Your task to perform on an android device: find snoozed emails in the gmail app Image 0: 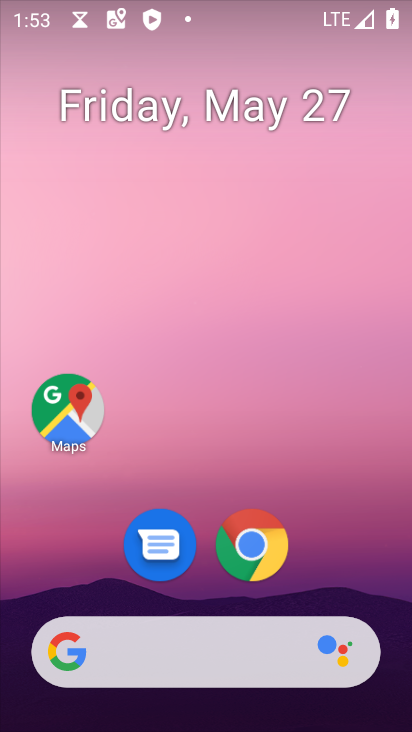
Step 0: drag from (341, 550) to (169, 43)
Your task to perform on an android device: find snoozed emails in the gmail app Image 1: 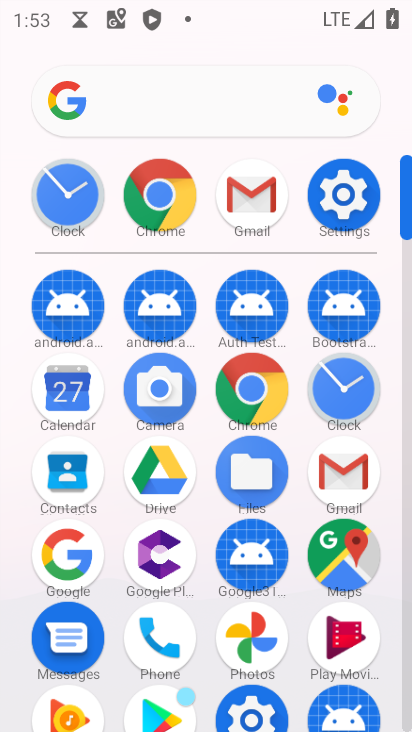
Step 1: click (251, 201)
Your task to perform on an android device: find snoozed emails in the gmail app Image 2: 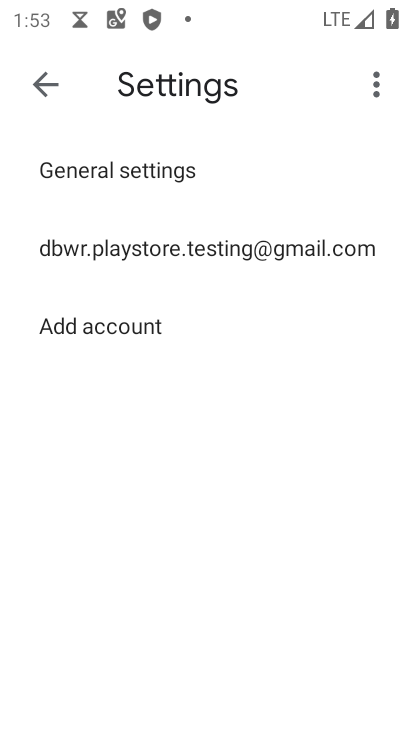
Step 2: click (47, 89)
Your task to perform on an android device: find snoozed emails in the gmail app Image 3: 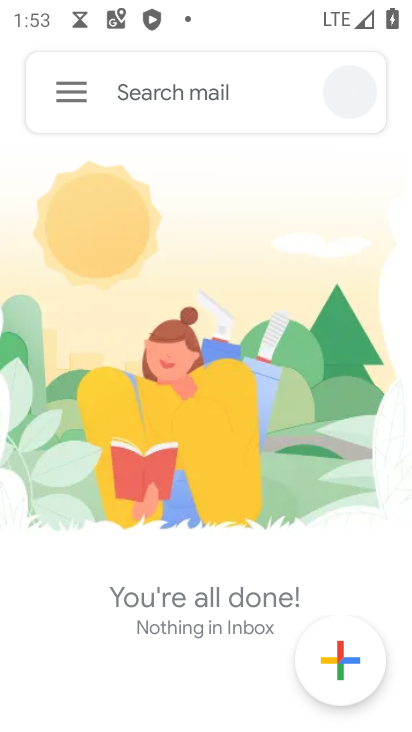
Step 3: click (63, 94)
Your task to perform on an android device: find snoozed emails in the gmail app Image 4: 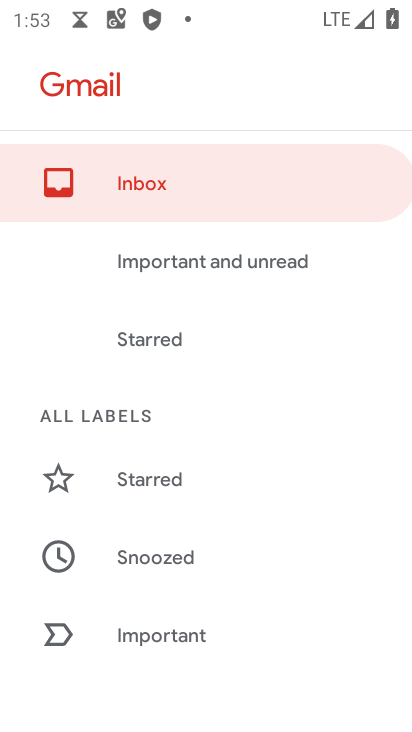
Step 4: click (179, 552)
Your task to perform on an android device: find snoozed emails in the gmail app Image 5: 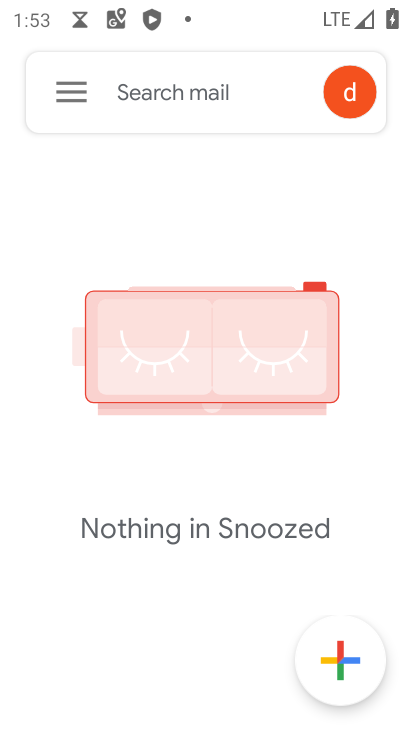
Step 5: task complete